Your task to perform on an android device: turn on airplane mode Image 0: 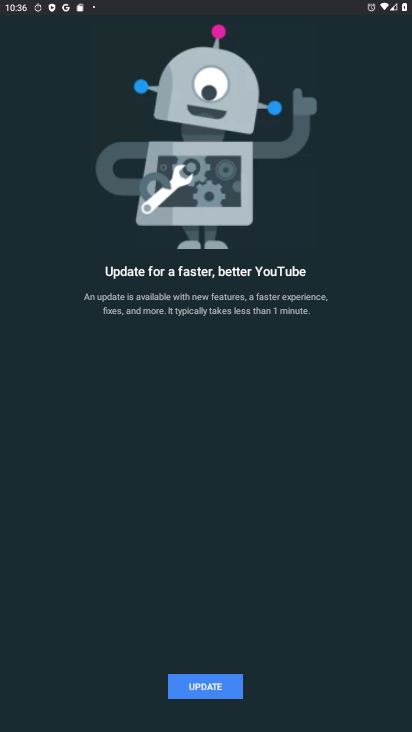
Step 0: press home button
Your task to perform on an android device: turn on airplane mode Image 1: 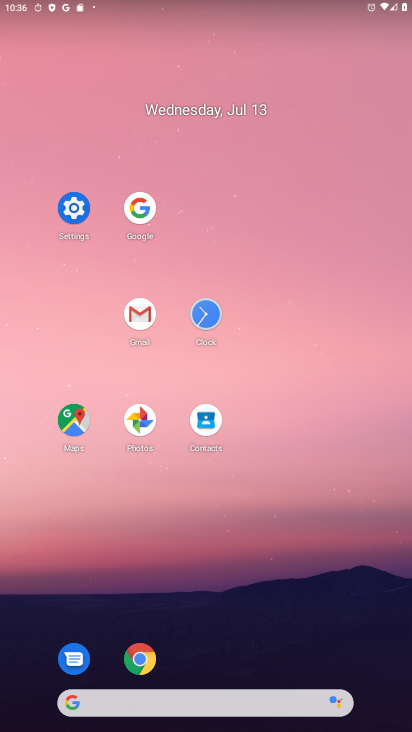
Step 1: click (83, 212)
Your task to perform on an android device: turn on airplane mode Image 2: 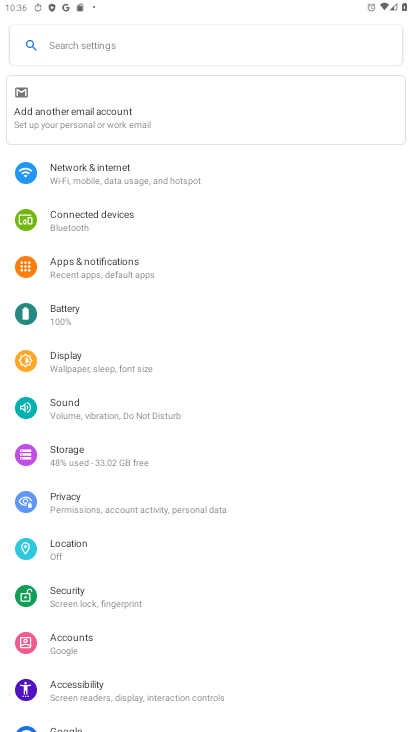
Step 2: click (199, 168)
Your task to perform on an android device: turn on airplane mode Image 3: 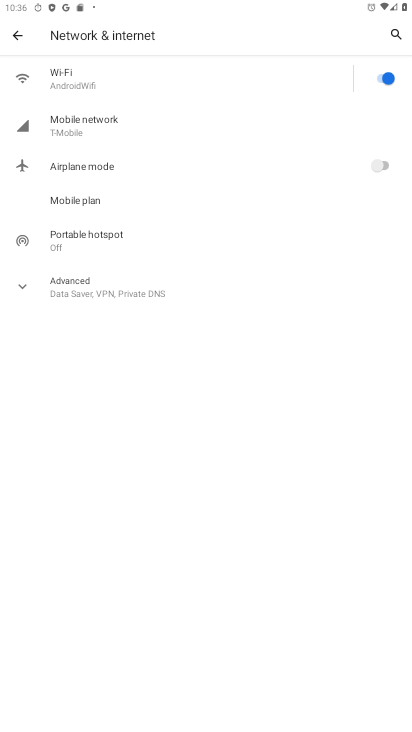
Step 3: click (372, 155)
Your task to perform on an android device: turn on airplane mode Image 4: 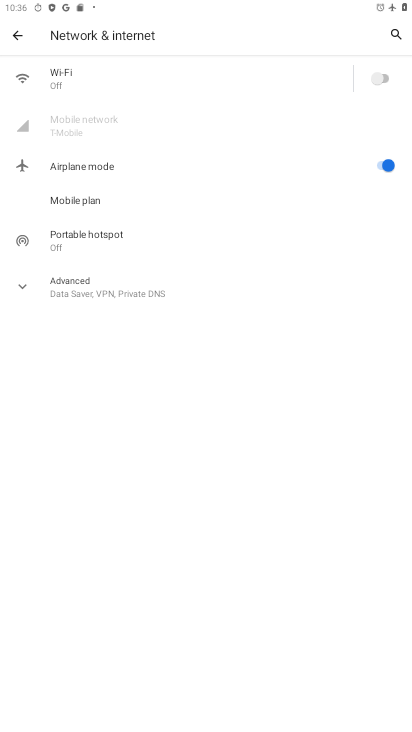
Step 4: task complete